Your task to perform on an android device: turn off wifi Image 0: 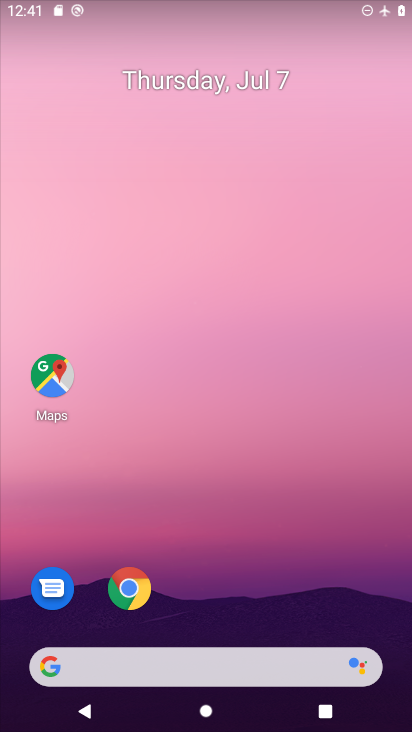
Step 0: drag from (209, 669) to (196, 7)
Your task to perform on an android device: turn off wifi Image 1: 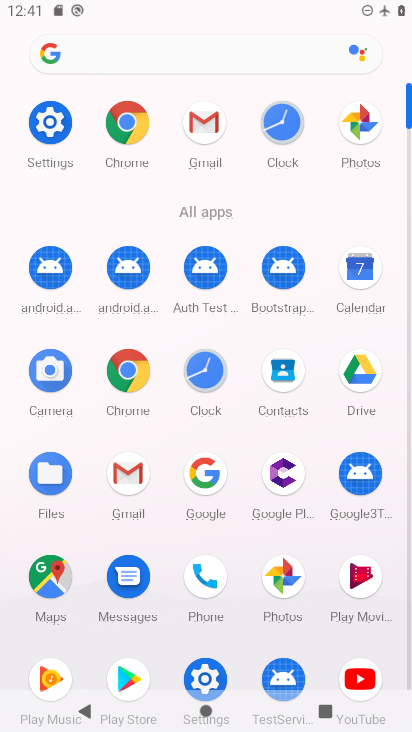
Step 1: click (45, 122)
Your task to perform on an android device: turn off wifi Image 2: 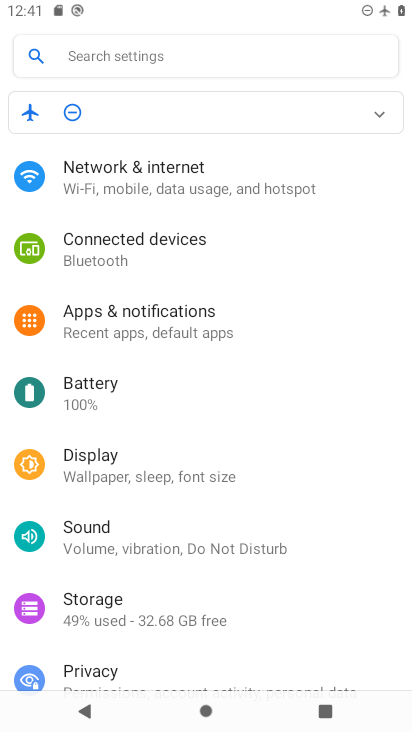
Step 2: drag from (138, 615) to (176, 233)
Your task to perform on an android device: turn off wifi Image 3: 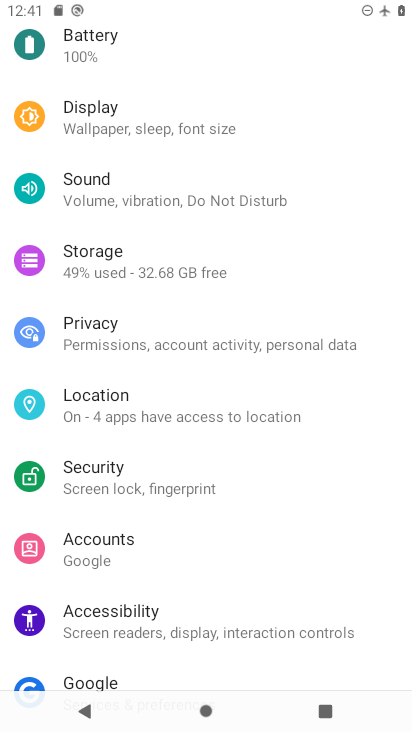
Step 3: drag from (176, 190) to (172, 654)
Your task to perform on an android device: turn off wifi Image 4: 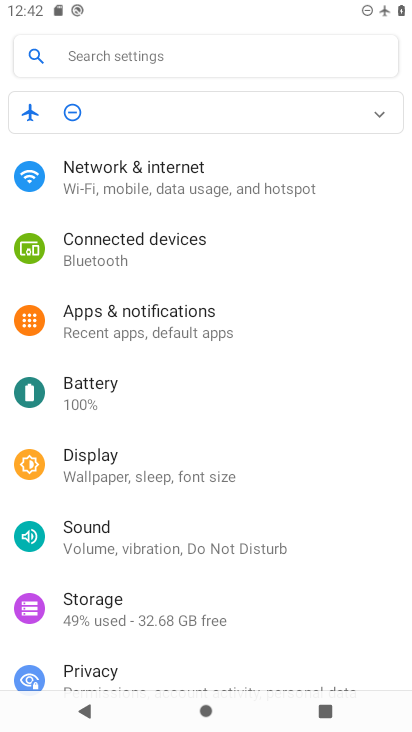
Step 4: click (224, 190)
Your task to perform on an android device: turn off wifi Image 5: 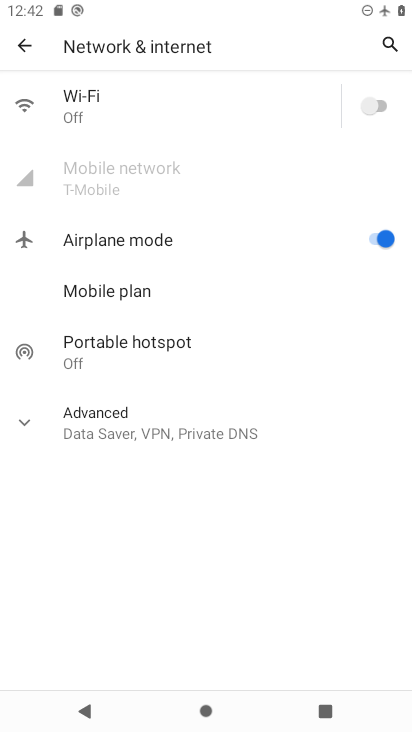
Step 5: task complete